Your task to perform on an android device: turn smart compose on in the gmail app Image 0: 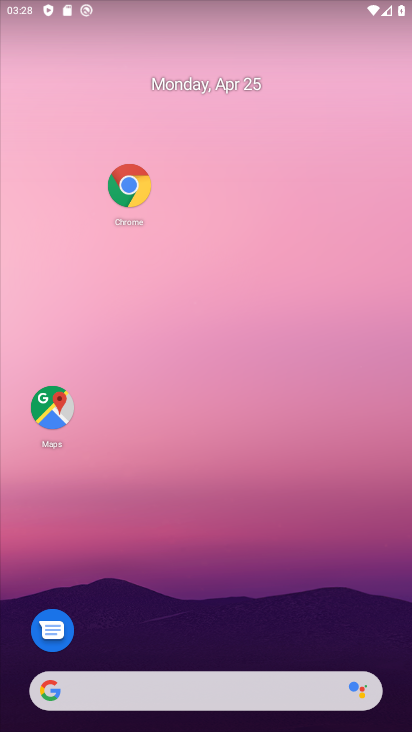
Step 0: click (125, 180)
Your task to perform on an android device: turn smart compose on in the gmail app Image 1: 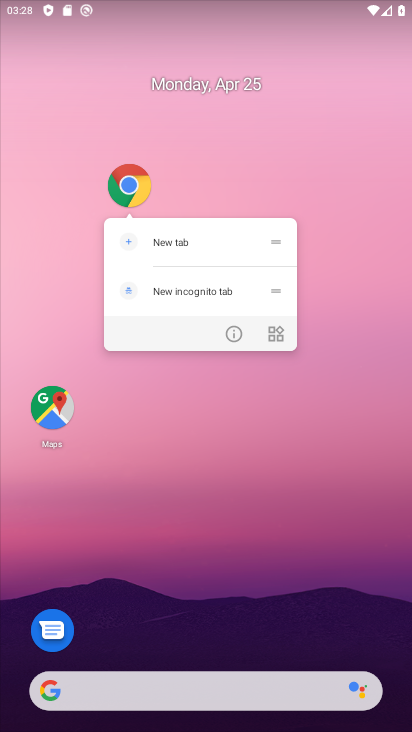
Step 1: click (245, 333)
Your task to perform on an android device: turn smart compose on in the gmail app Image 2: 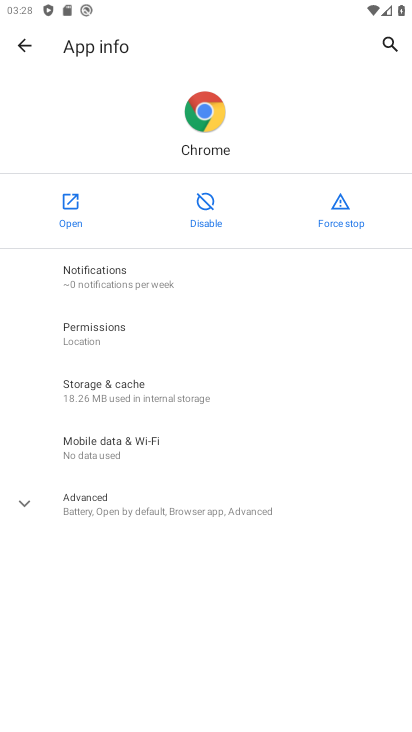
Step 2: click (46, 202)
Your task to perform on an android device: turn smart compose on in the gmail app Image 3: 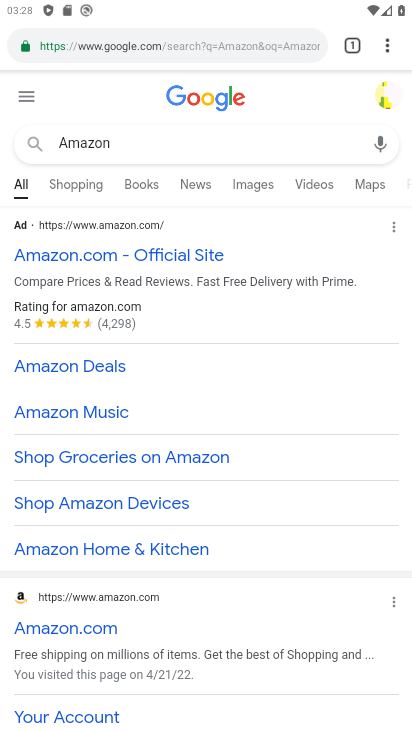
Step 3: press home button
Your task to perform on an android device: turn smart compose on in the gmail app Image 4: 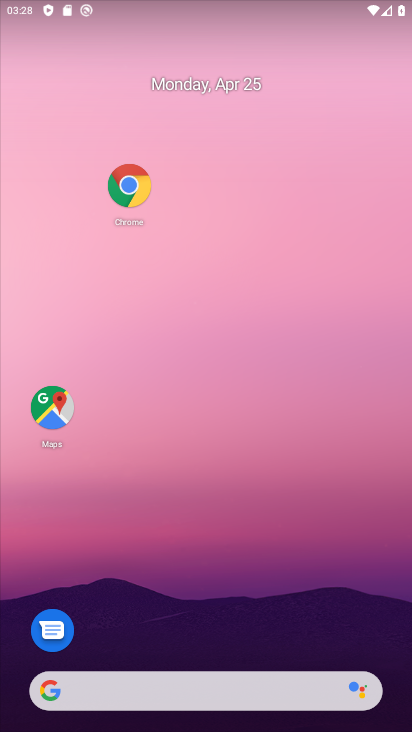
Step 4: drag from (88, 565) to (93, 148)
Your task to perform on an android device: turn smart compose on in the gmail app Image 5: 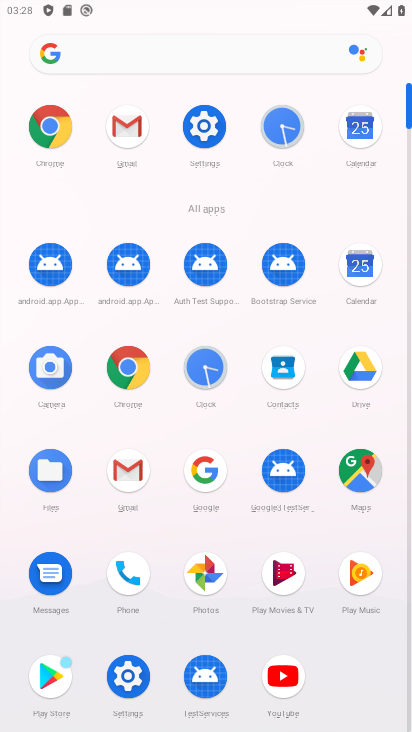
Step 5: click (120, 477)
Your task to perform on an android device: turn smart compose on in the gmail app Image 6: 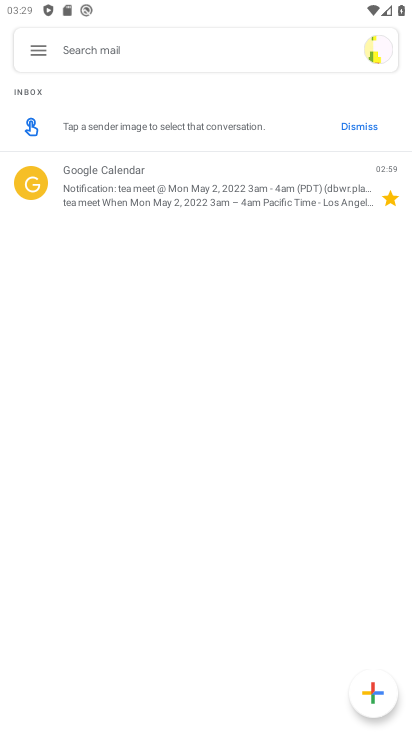
Step 6: click (41, 57)
Your task to perform on an android device: turn smart compose on in the gmail app Image 7: 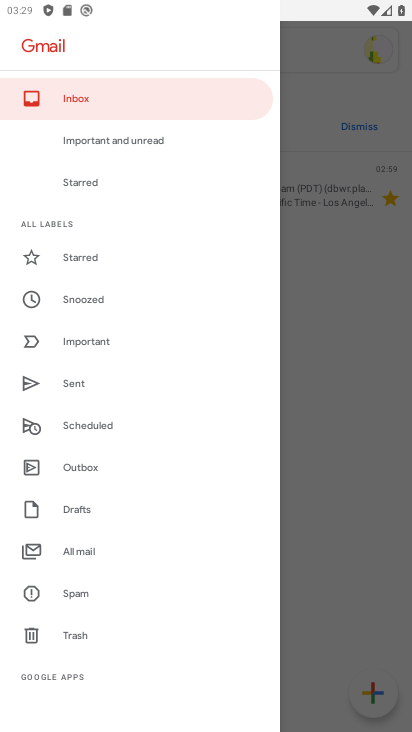
Step 7: drag from (71, 492) to (95, 148)
Your task to perform on an android device: turn smart compose on in the gmail app Image 8: 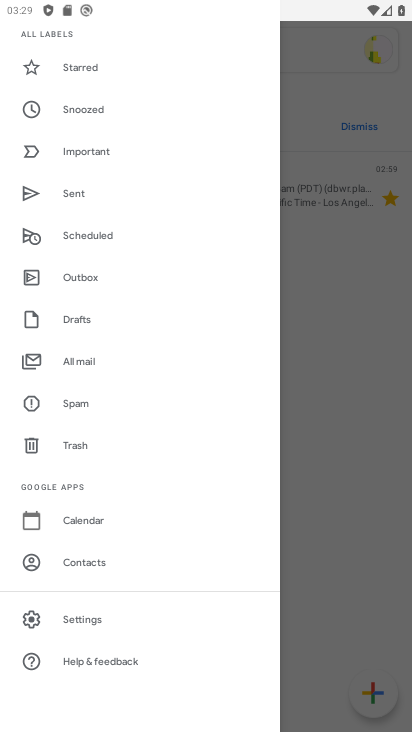
Step 8: click (76, 627)
Your task to perform on an android device: turn smart compose on in the gmail app Image 9: 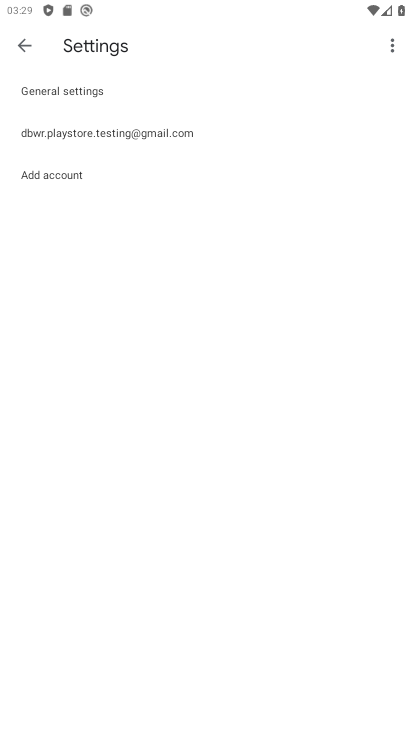
Step 9: click (83, 134)
Your task to perform on an android device: turn smart compose on in the gmail app Image 10: 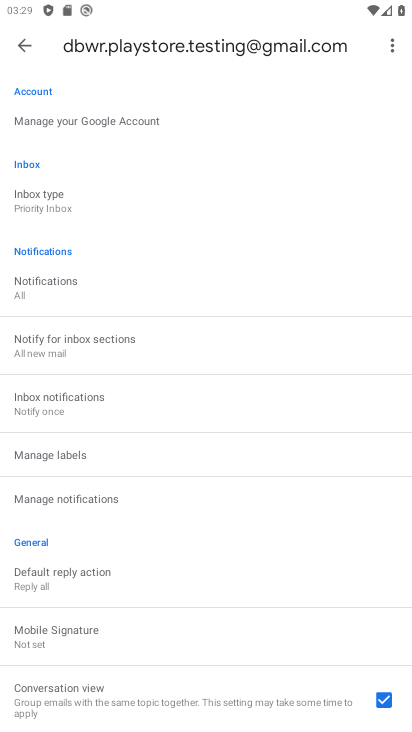
Step 10: task complete